Your task to perform on an android device: Show me the alarms in the clock app Image 0: 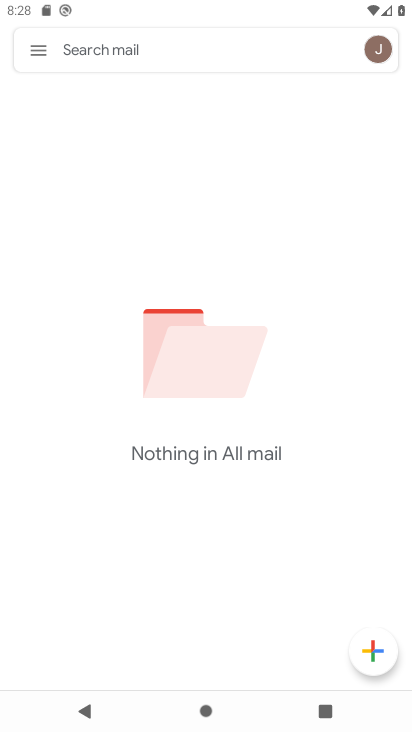
Step 0: press home button
Your task to perform on an android device: Show me the alarms in the clock app Image 1: 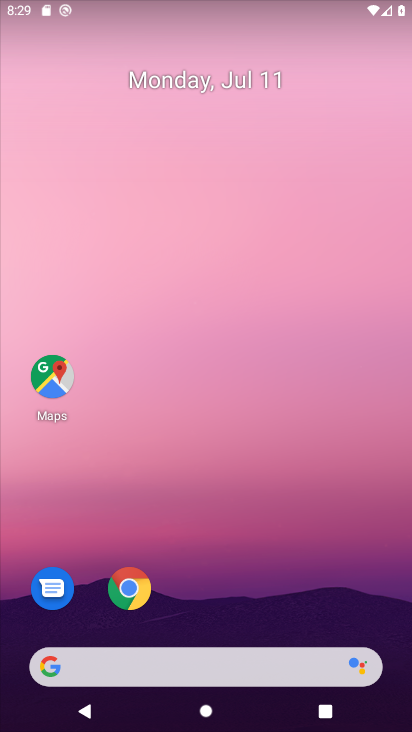
Step 1: drag from (308, 488) to (273, 9)
Your task to perform on an android device: Show me the alarms in the clock app Image 2: 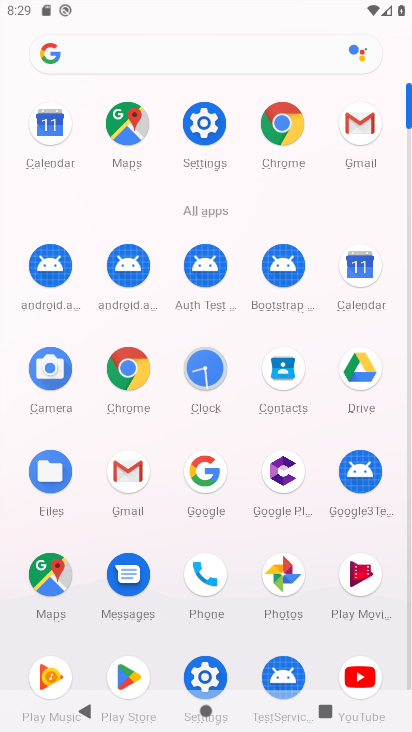
Step 2: click (217, 363)
Your task to perform on an android device: Show me the alarms in the clock app Image 3: 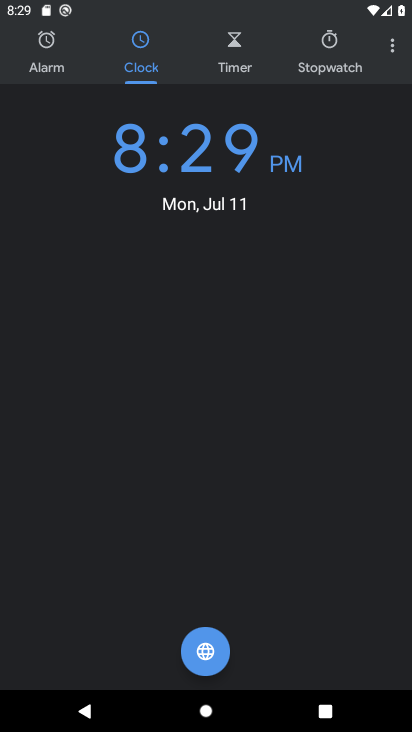
Step 3: click (41, 38)
Your task to perform on an android device: Show me the alarms in the clock app Image 4: 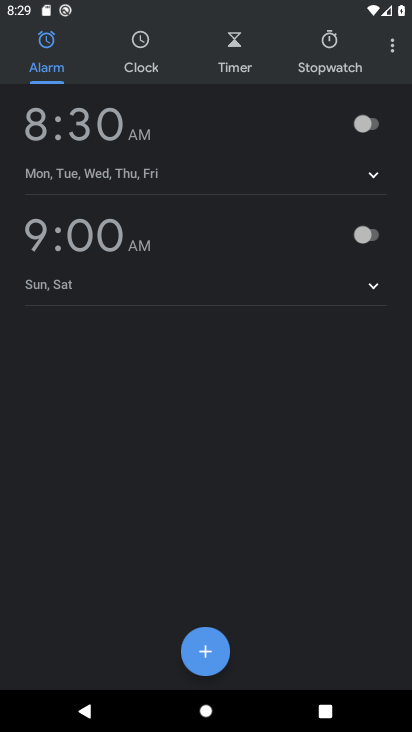
Step 4: task complete